Your task to perform on an android device: delete a single message in the gmail app Image 0: 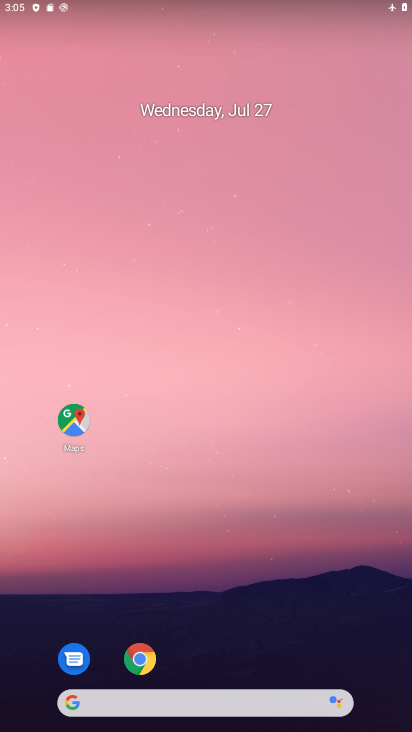
Step 0: drag from (214, 677) to (234, 30)
Your task to perform on an android device: delete a single message in the gmail app Image 1: 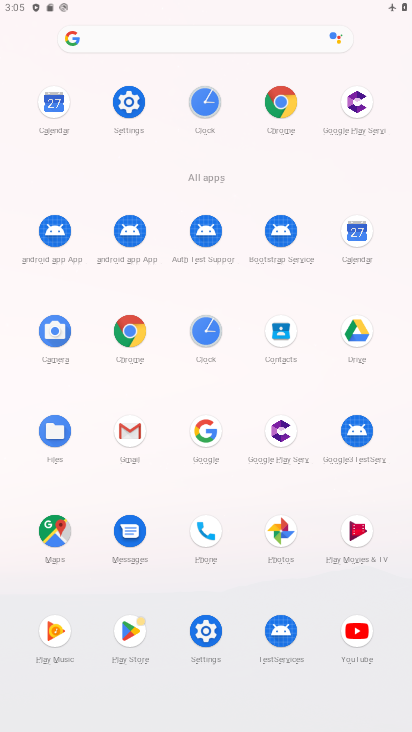
Step 1: click (134, 430)
Your task to perform on an android device: delete a single message in the gmail app Image 2: 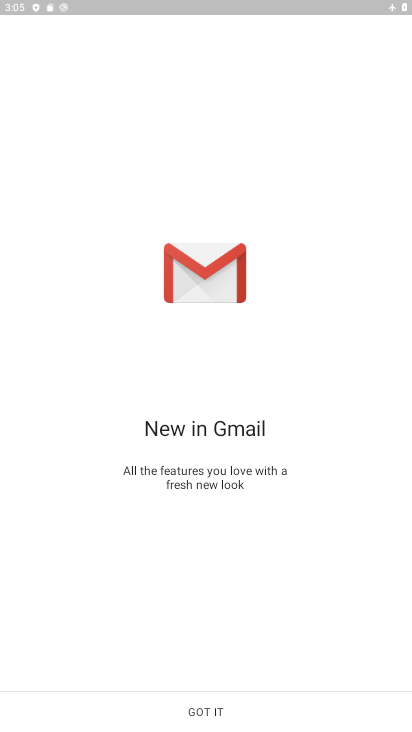
Step 2: click (213, 710)
Your task to perform on an android device: delete a single message in the gmail app Image 3: 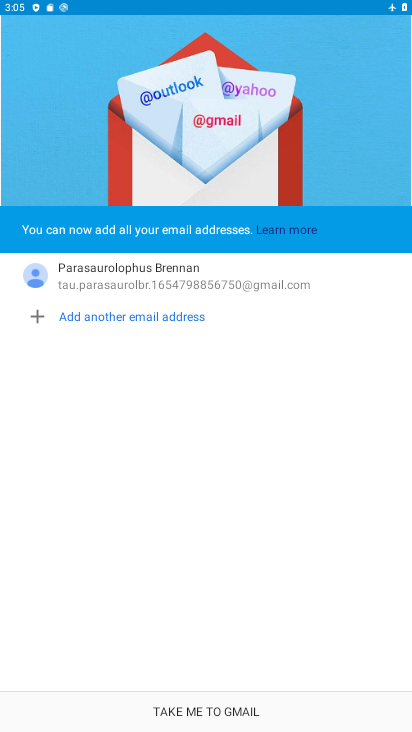
Step 3: click (213, 710)
Your task to perform on an android device: delete a single message in the gmail app Image 4: 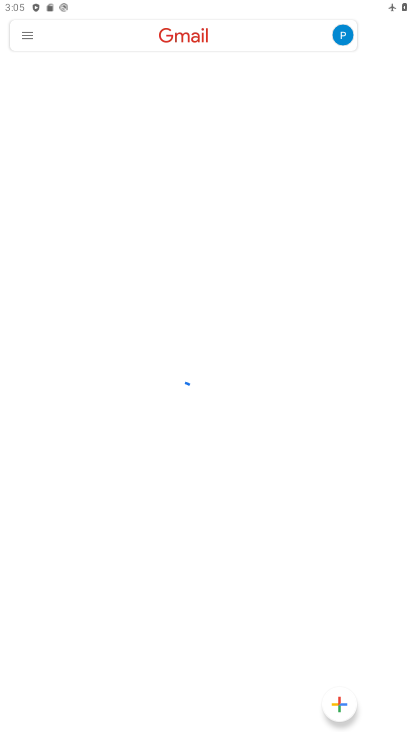
Step 4: click (33, 33)
Your task to perform on an android device: delete a single message in the gmail app Image 5: 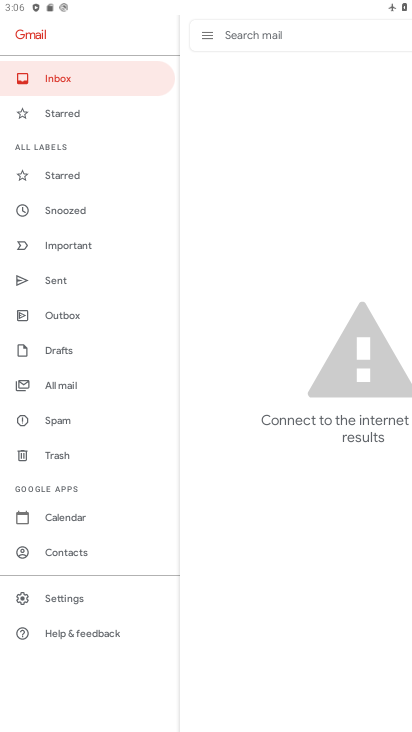
Step 5: click (68, 393)
Your task to perform on an android device: delete a single message in the gmail app Image 6: 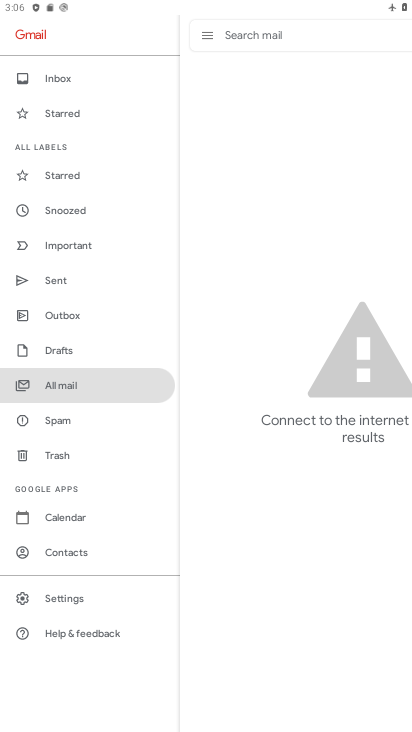
Step 6: task complete